Your task to perform on an android device: show emergency info Image 0: 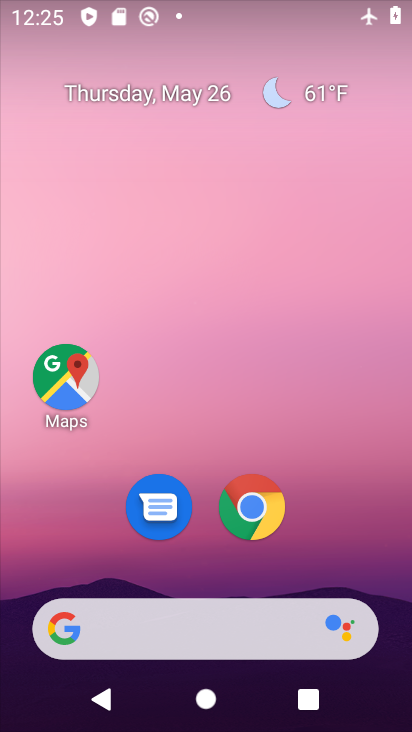
Step 0: drag from (380, 567) to (281, 51)
Your task to perform on an android device: show emergency info Image 1: 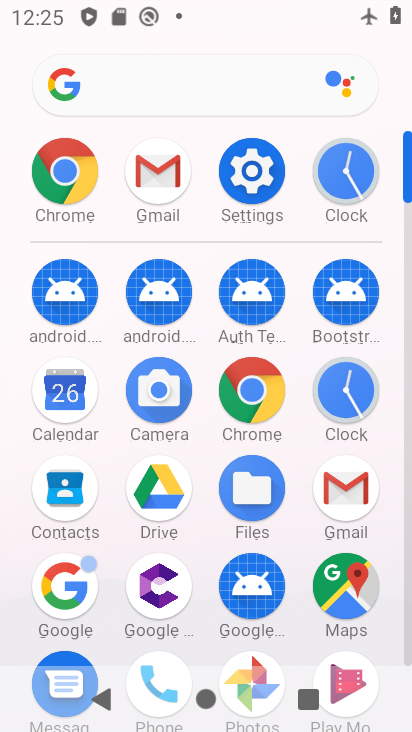
Step 1: click (260, 152)
Your task to perform on an android device: show emergency info Image 2: 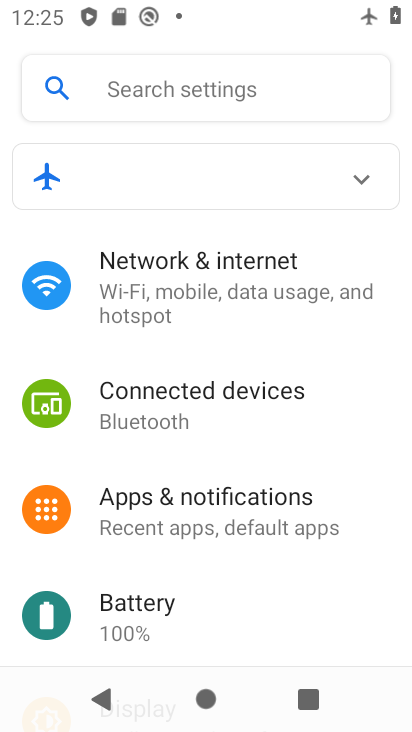
Step 2: drag from (206, 582) to (167, 58)
Your task to perform on an android device: show emergency info Image 3: 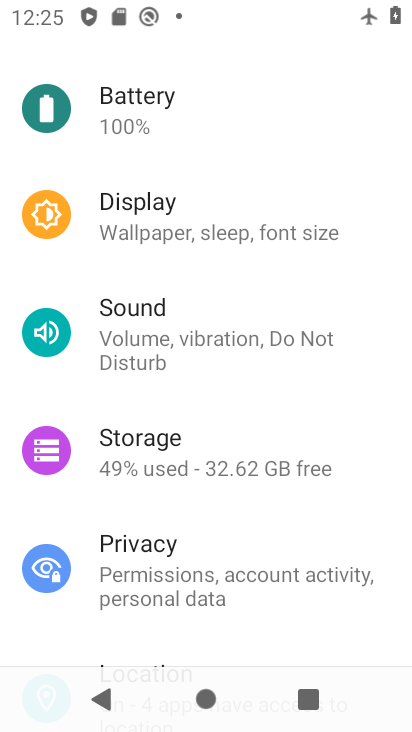
Step 3: drag from (239, 651) to (240, 261)
Your task to perform on an android device: show emergency info Image 4: 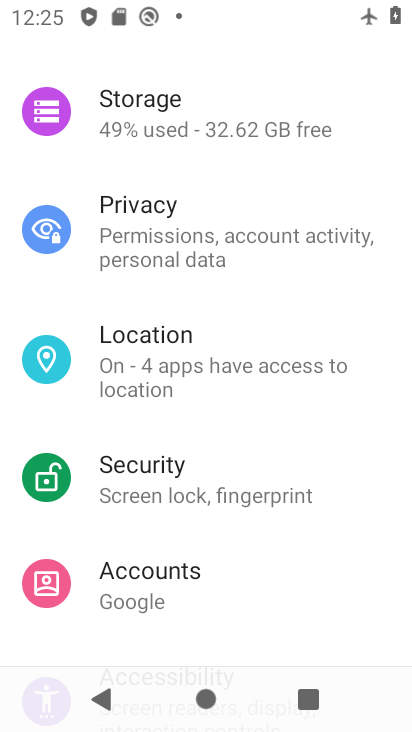
Step 4: drag from (271, 607) to (255, 348)
Your task to perform on an android device: show emergency info Image 5: 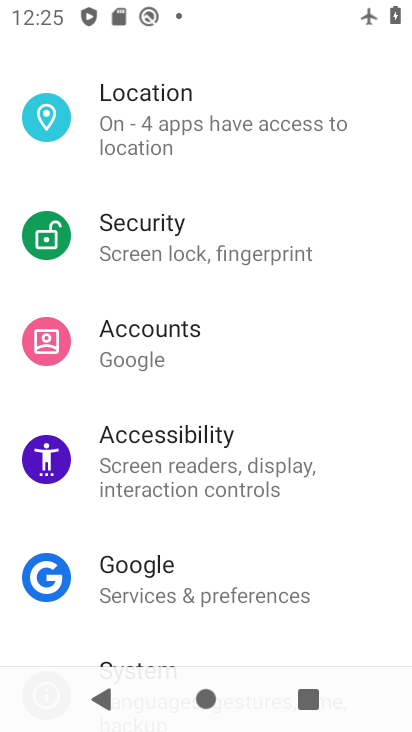
Step 5: drag from (239, 615) to (229, 510)
Your task to perform on an android device: show emergency info Image 6: 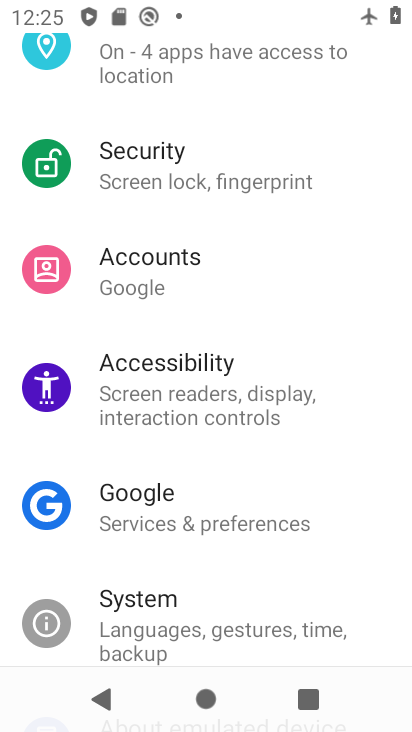
Step 6: drag from (268, 625) to (268, 537)
Your task to perform on an android device: show emergency info Image 7: 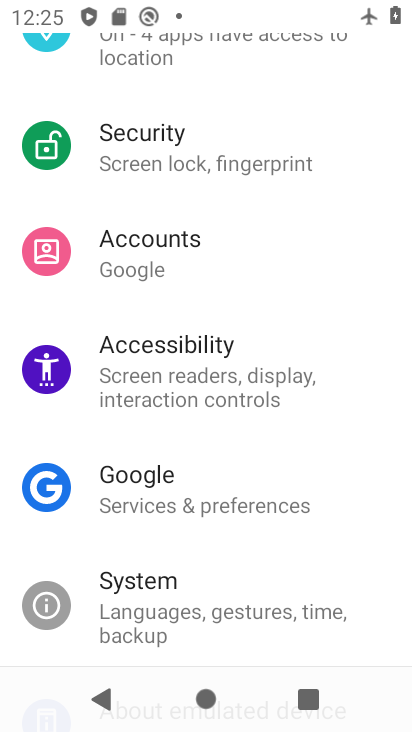
Step 7: drag from (269, 634) to (264, 280)
Your task to perform on an android device: show emergency info Image 8: 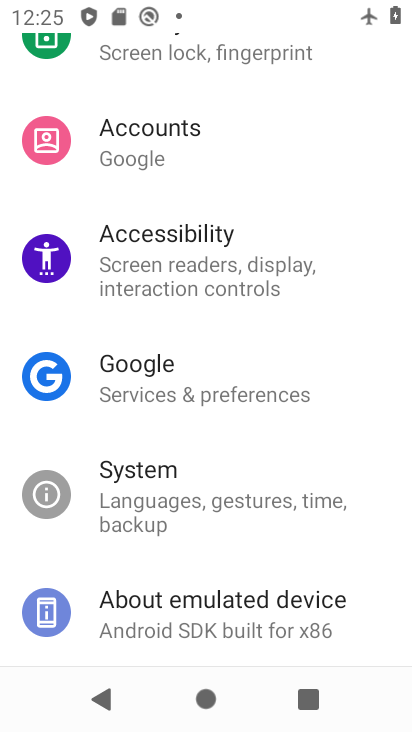
Step 8: click (222, 607)
Your task to perform on an android device: show emergency info Image 9: 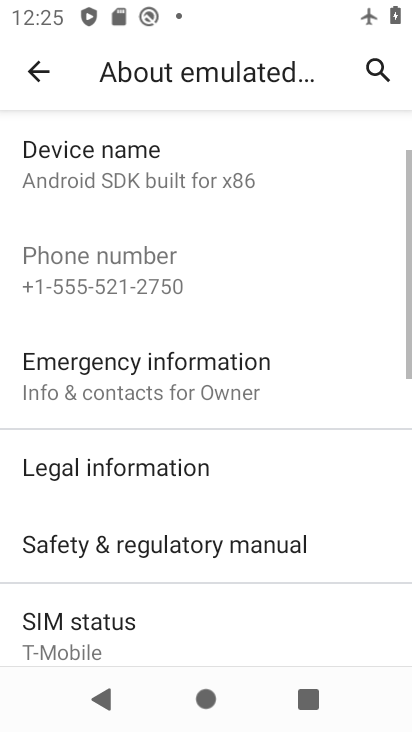
Step 9: click (174, 397)
Your task to perform on an android device: show emergency info Image 10: 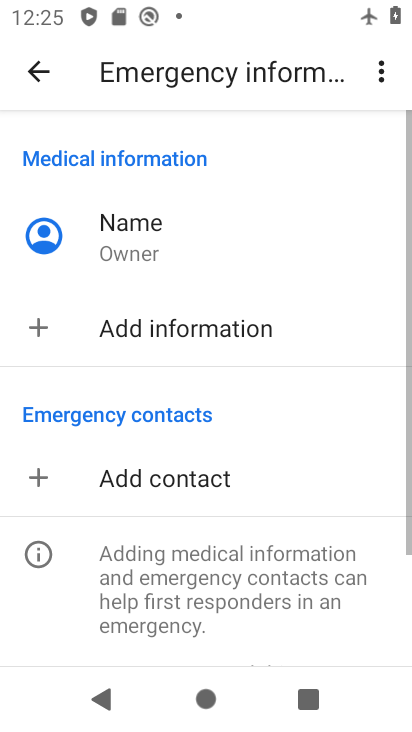
Step 10: task complete